Your task to perform on an android device: Go to ESPN.com Image 0: 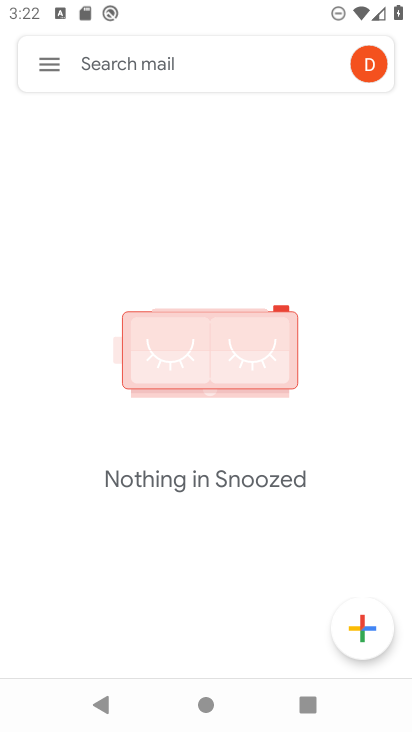
Step 0: press home button
Your task to perform on an android device: Go to ESPN.com Image 1: 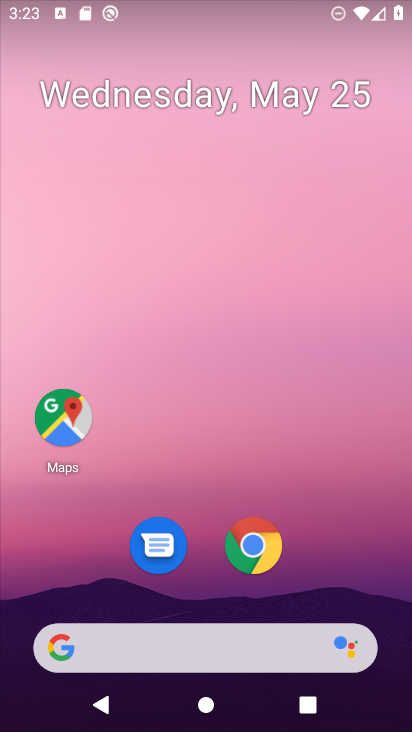
Step 1: click (256, 651)
Your task to perform on an android device: Go to ESPN.com Image 2: 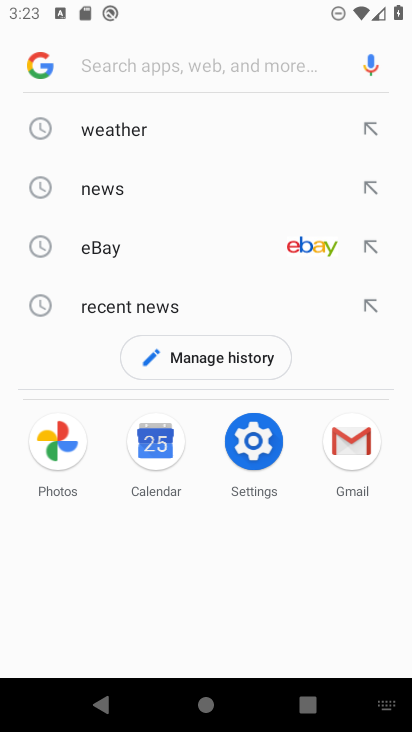
Step 2: click (256, 651)
Your task to perform on an android device: Go to ESPN.com Image 3: 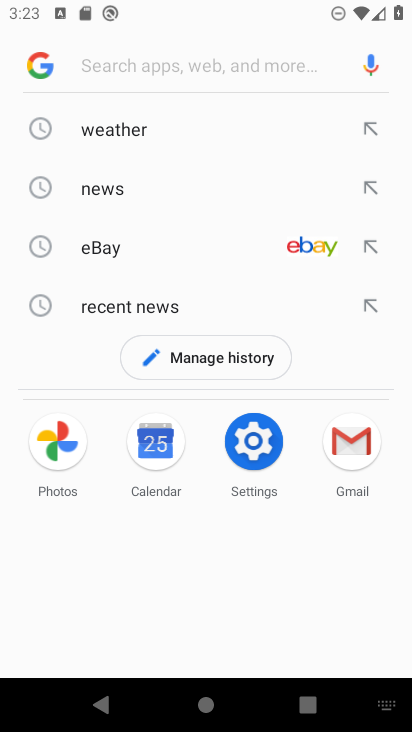
Step 3: type "espn.com"
Your task to perform on an android device: Go to ESPN.com Image 4: 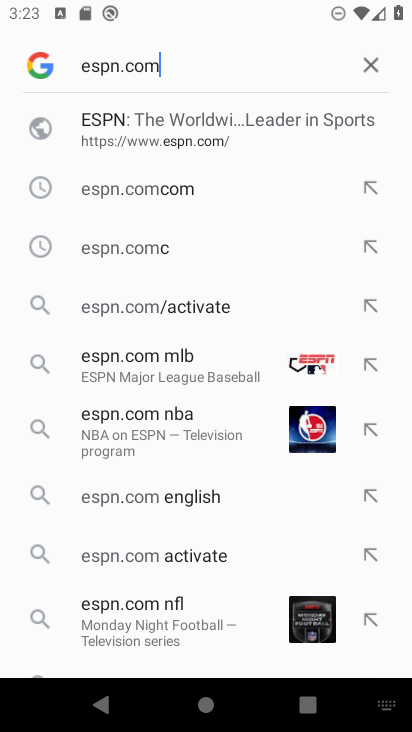
Step 4: click (200, 119)
Your task to perform on an android device: Go to ESPN.com Image 5: 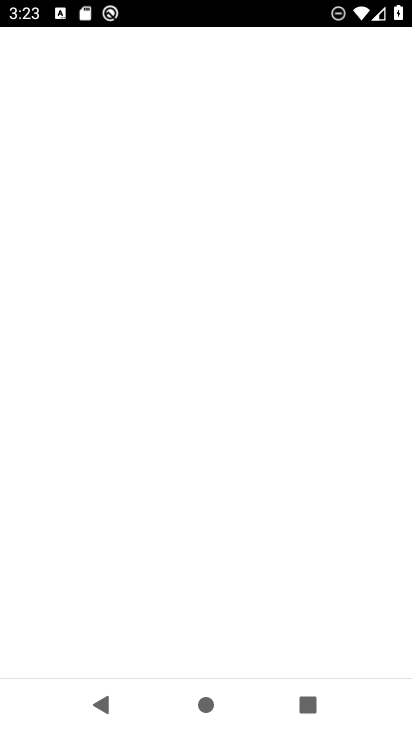
Step 5: task complete